Your task to perform on an android device: change the upload size in google photos Image 0: 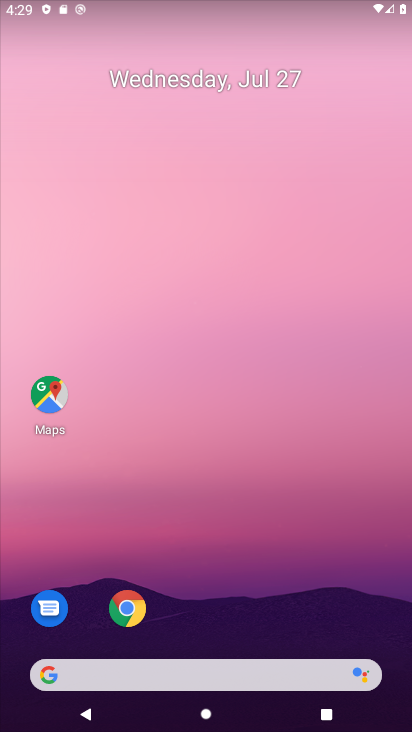
Step 0: click (230, 202)
Your task to perform on an android device: change the upload size in google photos Image 1: 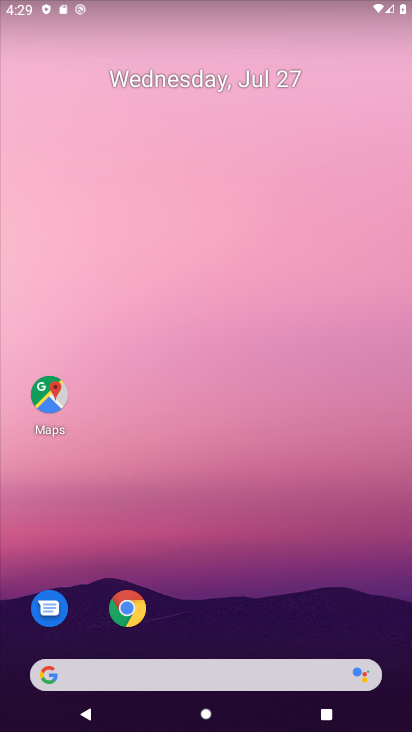
Step 1: drag from (216, 512) to (166, 143)
Your task to perform on an android device: change the upload size in google photos Image 2: 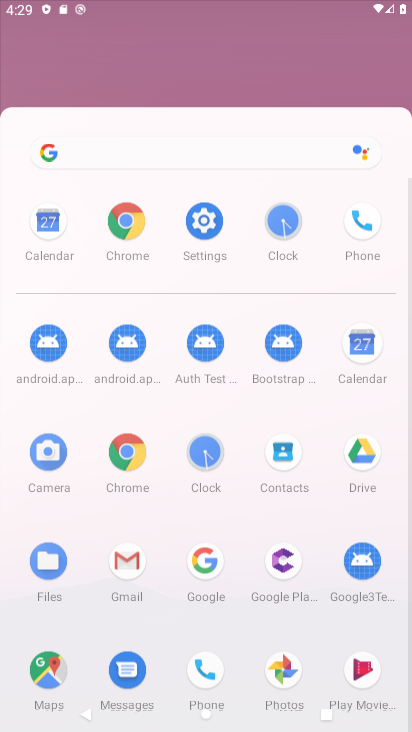
Step 2: drag from (261, 545) to (225, 102)
Your task to perform on an android device: change the upload size in google photos Image 3: 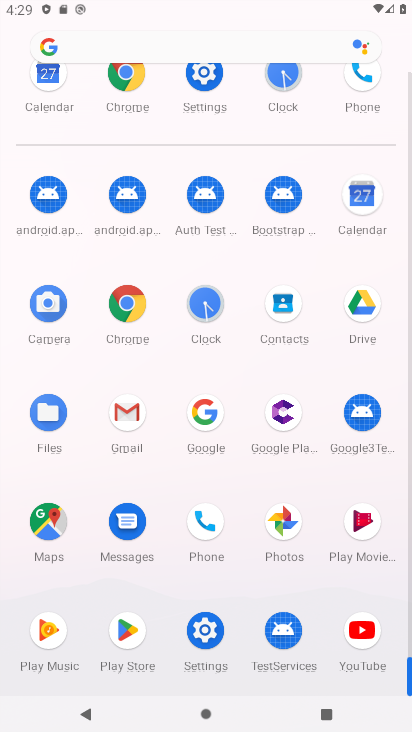
Step 3: click (288, 512)
Your task to perform on an android device: change the upload size in google photos Image 4: 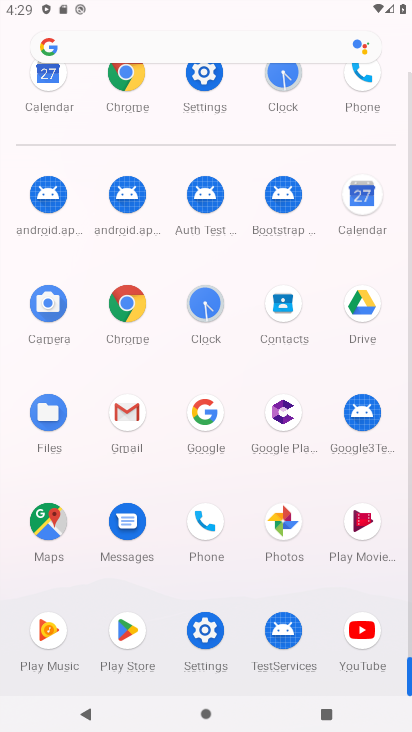
Step 4: click (288, 512)
Your task to perform on an android device: change the upload size in google photos Image 5: 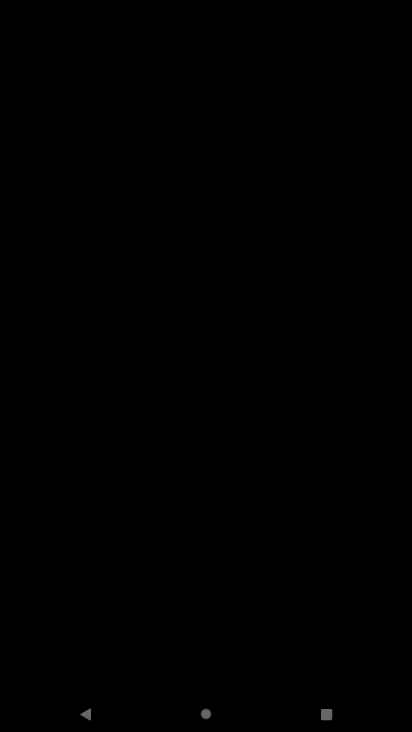
Step 5: click (288, 512)
Your task to perform on an android device: change the upload size in google photos Image 6: 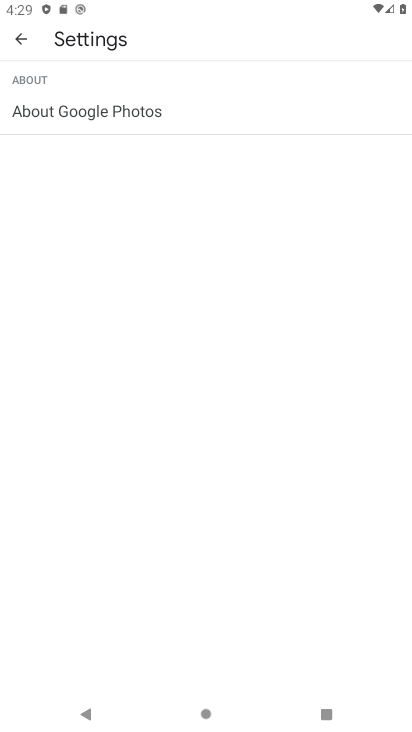
Step 6: click (28, 41)
Your task to perform on an android device: change the upload size in google photos Image 7: 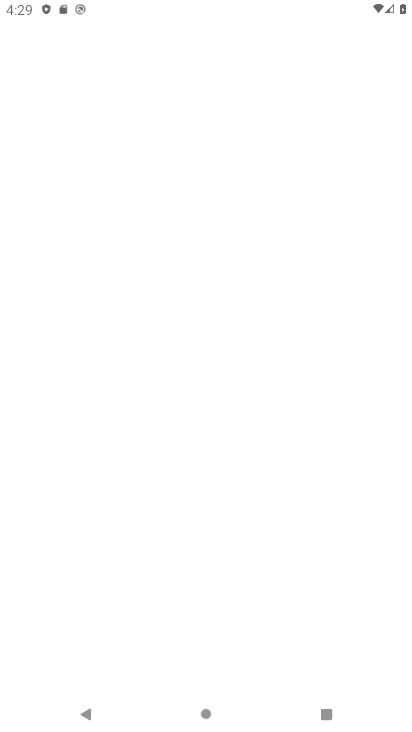
Step 7: click (84, 103)
Your task to perform on an android device: change the upload size in google photos Image 8: 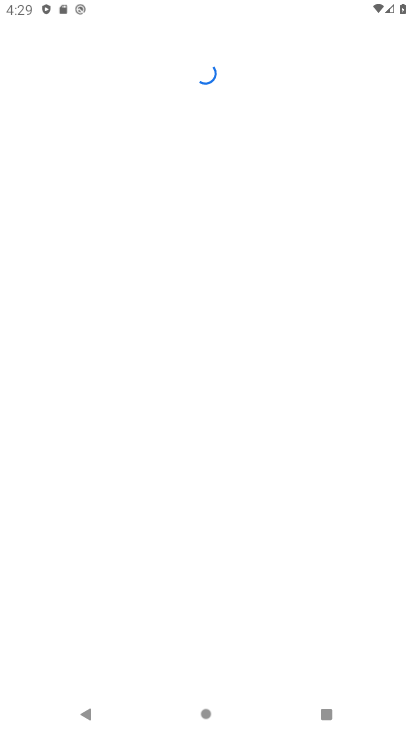
Step 8: click (84, 103)
Your task to perform on an android device: change the upload size in google photos Image 9: 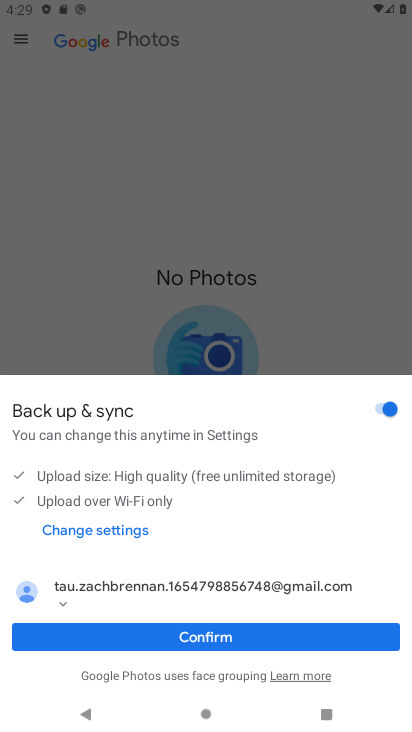
Step 9: click (203, 625)
Your task to perform on an android device: change the upload size in google photos Image 10: 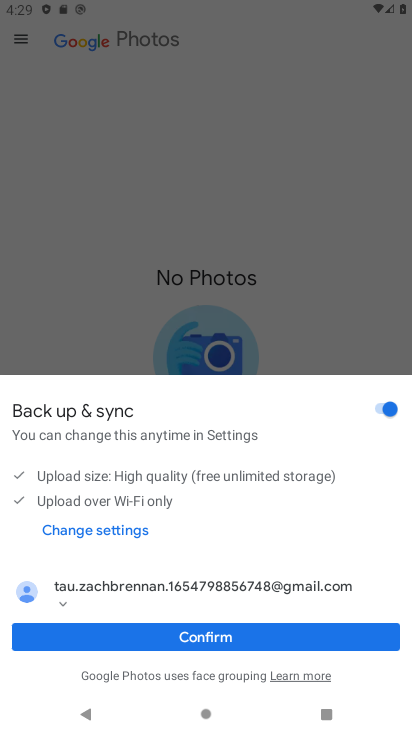
Step 10: click (204, 625)
Your task to perform on an android device: change the upload size in google photos Image 11: 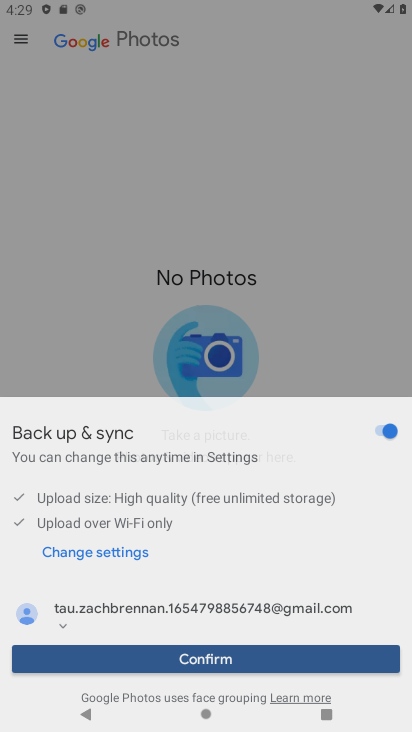
Step 11: click (206, 625)
Your task to perform on an android device: change the upload size in google photos Image 12: 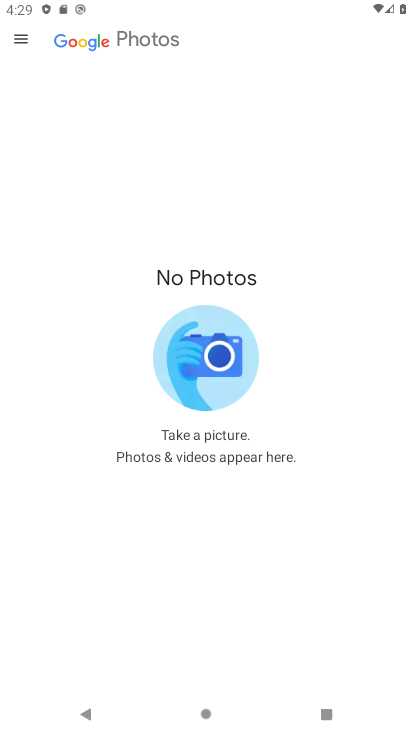
Step 12: click (209, 627)
Your task to perform on an android device: change the upload size in google photos Image 13: 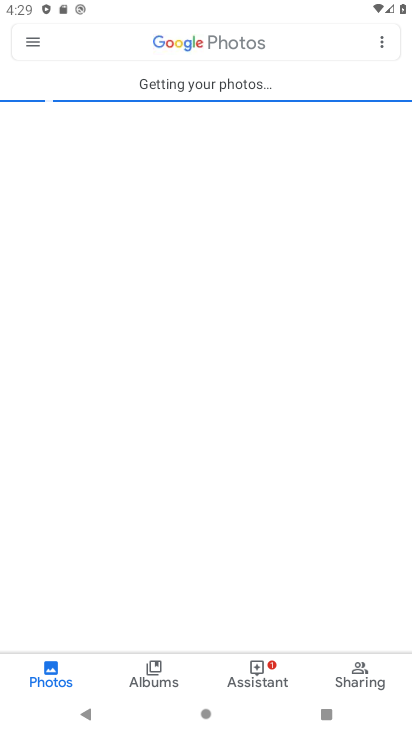
Step 13: click (30, 45)
Your task to perform on an android device: change the upload size in google photos Image 14: 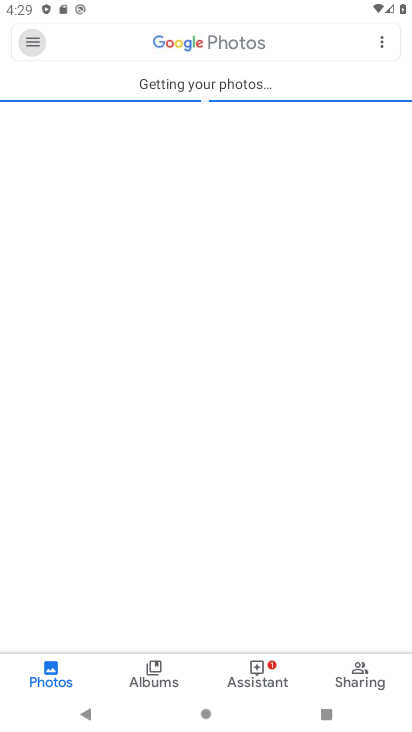
Step 14: click (30, 45)
Your task to perform on an android device: change the upload size in google photos Image 15: 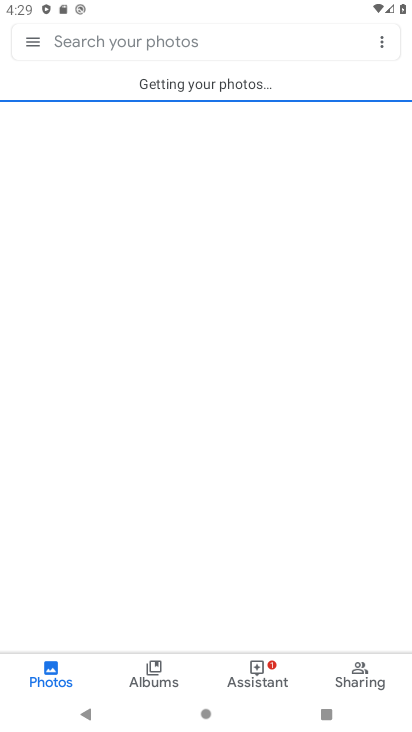
Step 15: click (26, 41)
Your task to perform on an android device: change the upload size in google photos Image 16: 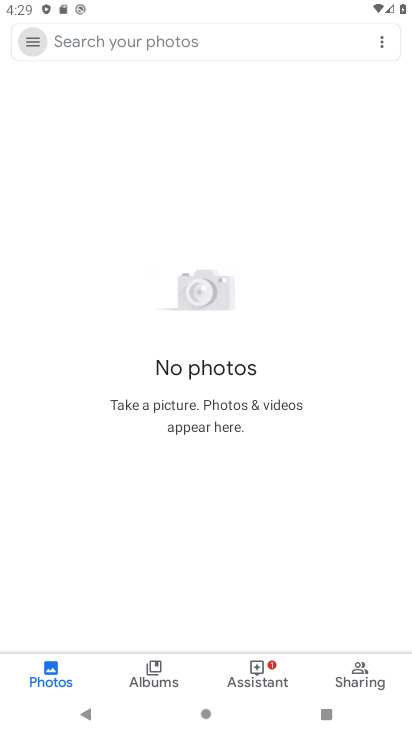
Step 16: click (26, 41)
Your task to perform on an android device: change the upload size in google photos Image 17: 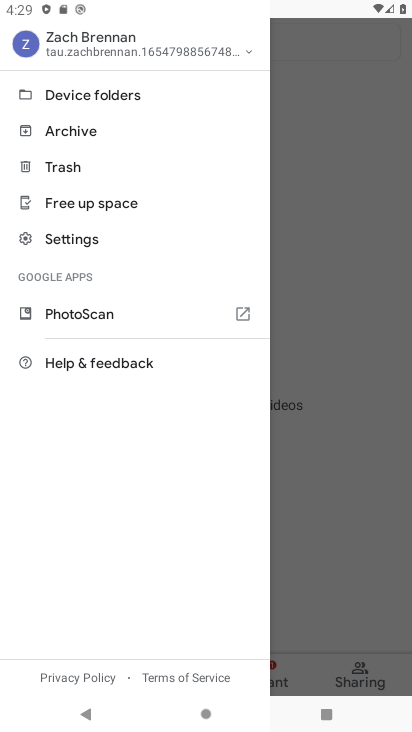
Step 17: click (71, 225)
Your task to perform on an android device: change the upload size in google photos Image 18: 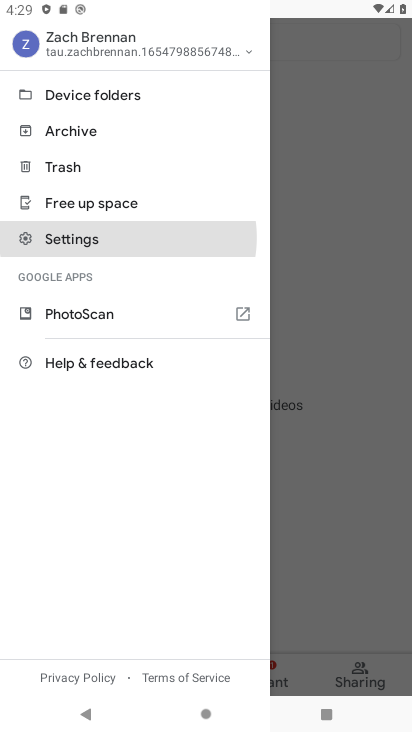
Step 18: click (71, 226)
Your task to perform on an android device: change the upload size in google photos Image 19: 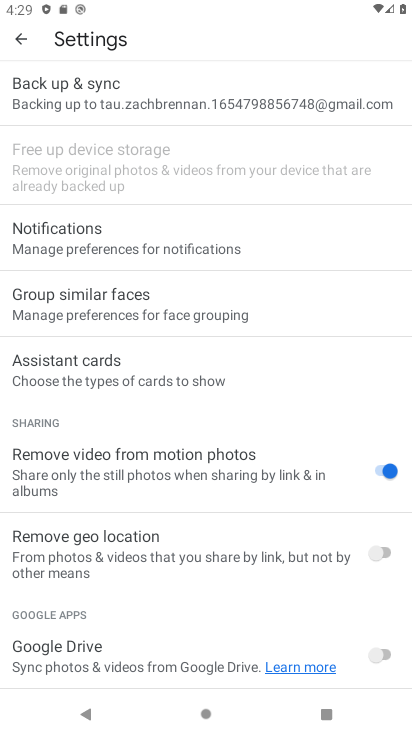
Step 19: click (59, 96)
Your task to perform on an android device: change the upload size in google photos Image 20: 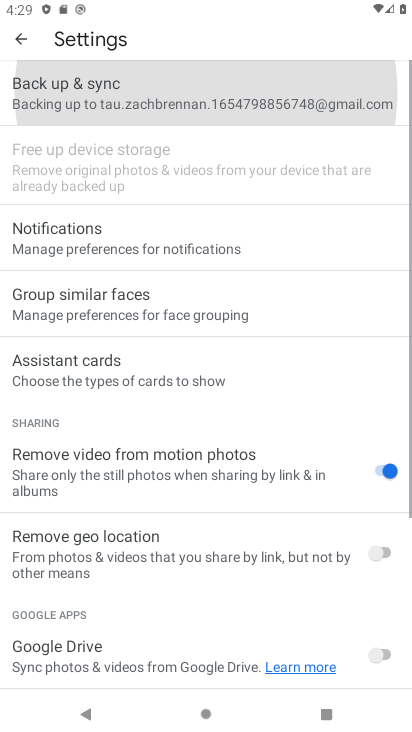
Step 20: click (60, 94)
Your task to perform on an android device: change the upload size in google photos Image 21: 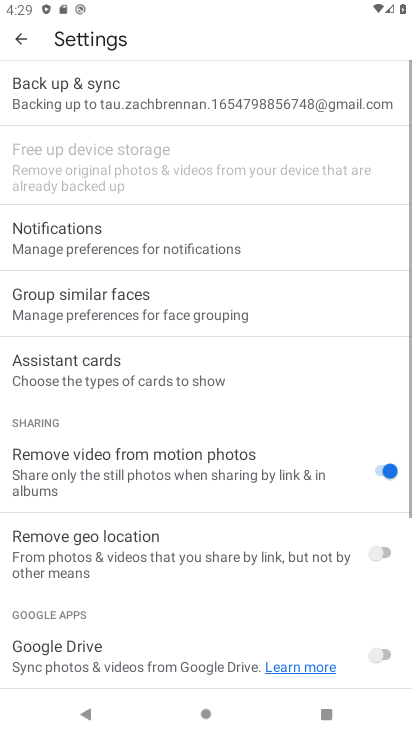
Step 21: click (60, 94)
Your task to perform on an android device: change the upload size in google photos Image 22: 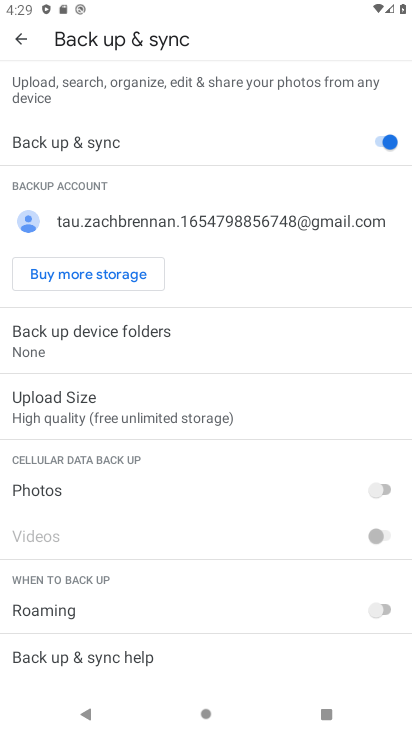
Step 22: click (40, 400)
Your task to perform on an android device: change the upload size in google photos Image 23: 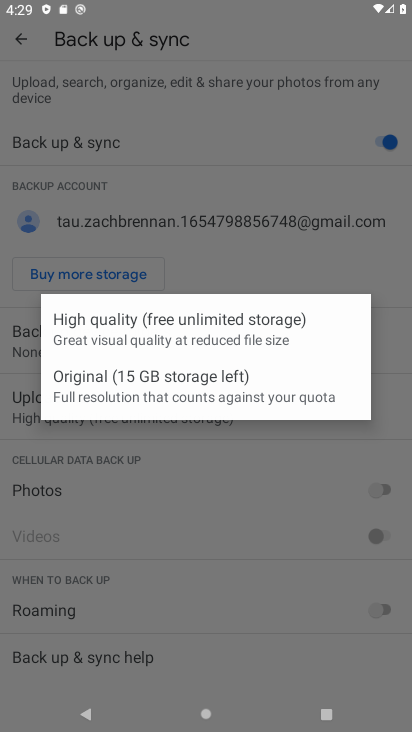
Step 23: click (41, 398)
Your task to perform on an android device: change the upload size in google photos Image 24: 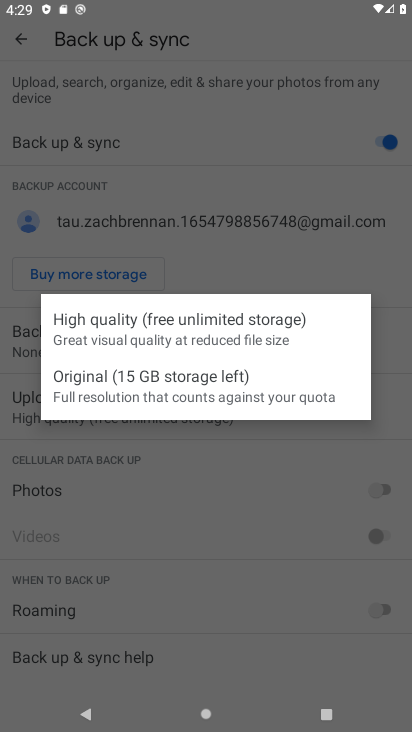
Step 24: click (137, 384)
Your task to perform on an android device: change the upload size in google photos Image 25: 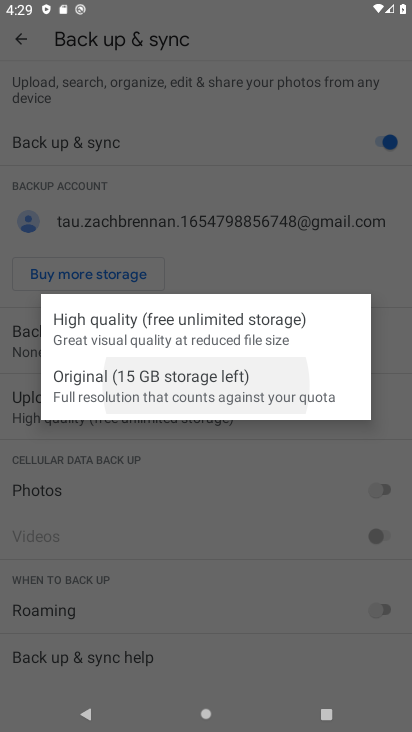
Step 25: click (142, 379)
Your task to perform on an android device: change the upload size in google photos Image 26: 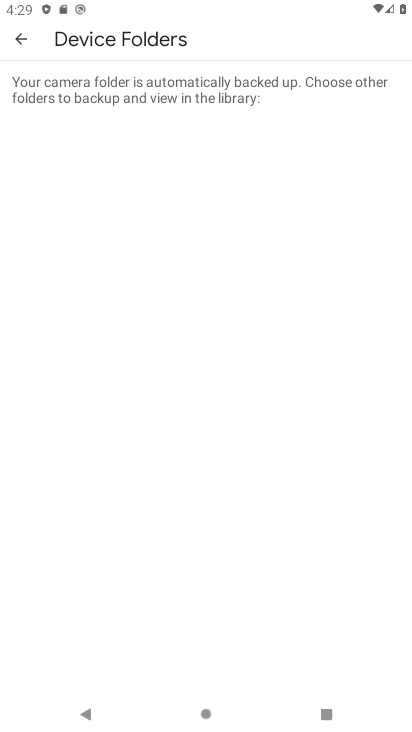
Step 26: task complete